Your task to perform on an android device: check the backup settings in the google photos Image 0: 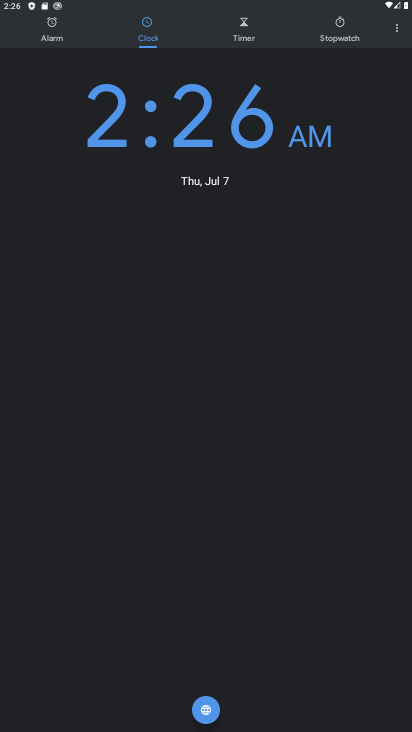
Step 0: press home button
Your task to perform on an android device: check the backup settings in the google photos Image 1: 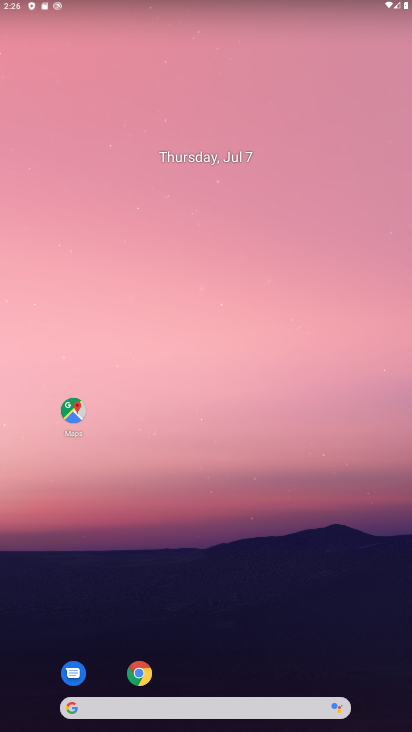
Step 1: drag from (192, 658) to (163, 53)
Your task to perform on an android device: check the backup settings in the google photos Image 2: 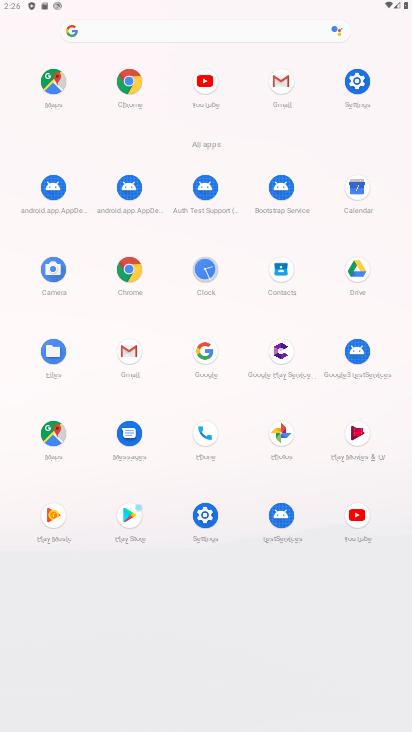
Step 2: click (277, 438)
Your task to perform on an android device: check the backup settings in the google photos Image 3: 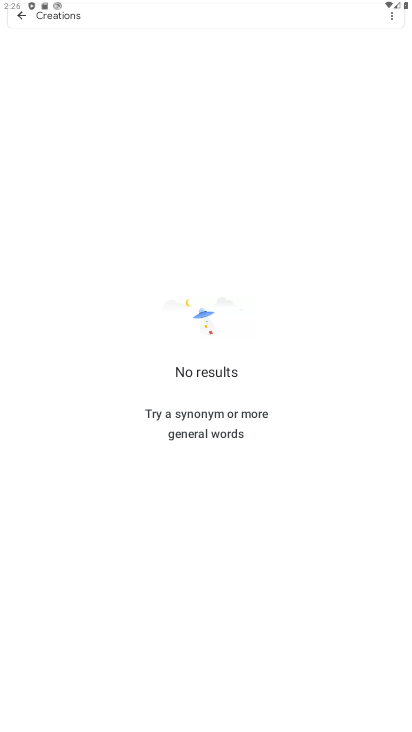
Step 3: click (13, 20)
Your task to perform on an android device: check the backup settings in the google photos Image 4: 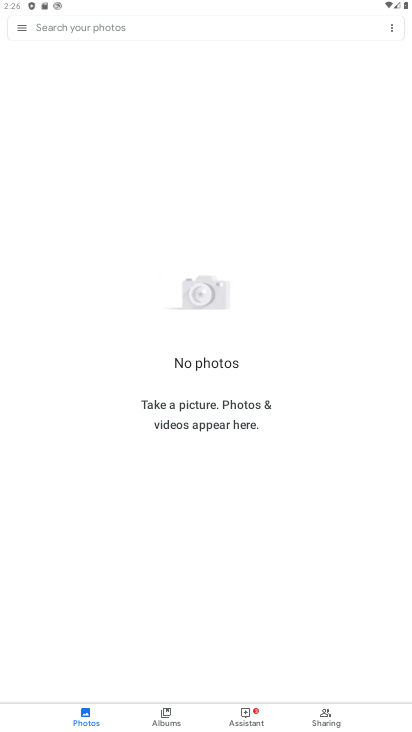
Step 4: click (13, 20)
Your task to perform on an android device: check the backup settings in the google photos Image 5: 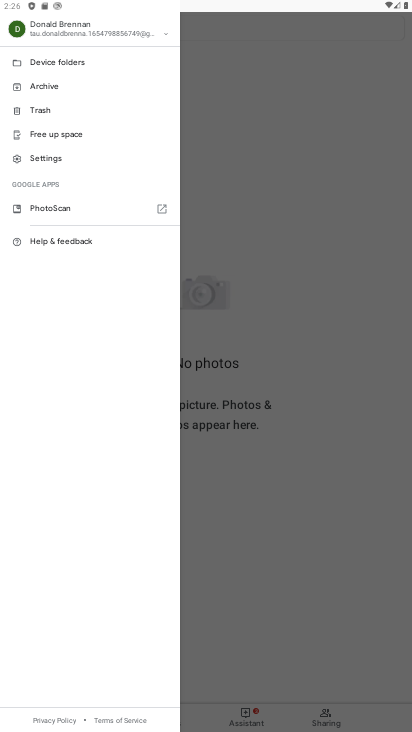
Step 5: click (42, 164)
Your task to perform on an android device: check the backup settings in the google photos Image 6: 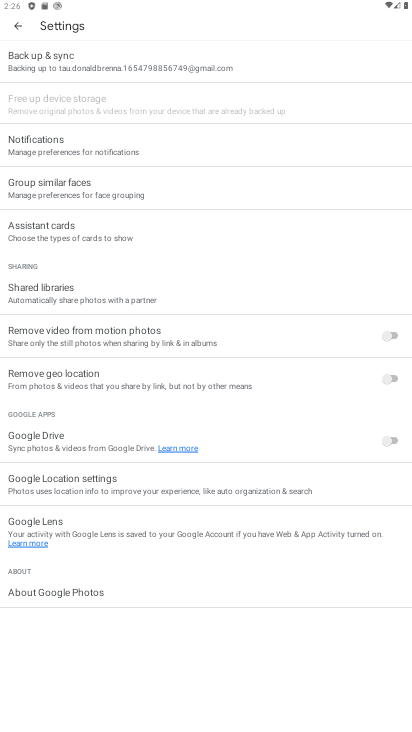
Step 6: click (65, 65)
Your task to perform on an android device: check the backup settings in the google photos Image 7: 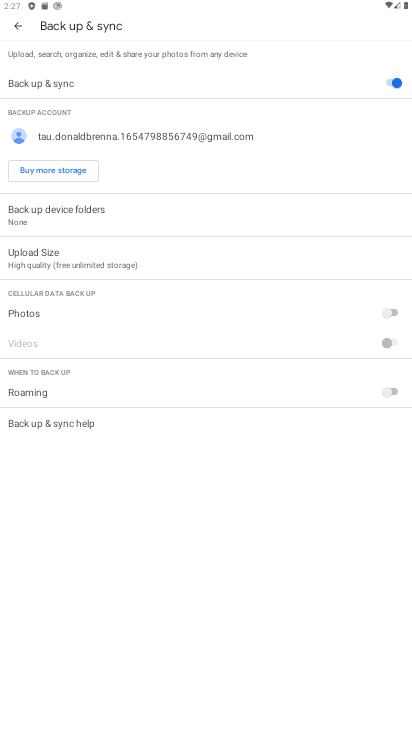
Step 7: task complete